Your task to perform on an android device: open chrome privacy settings Image 0: 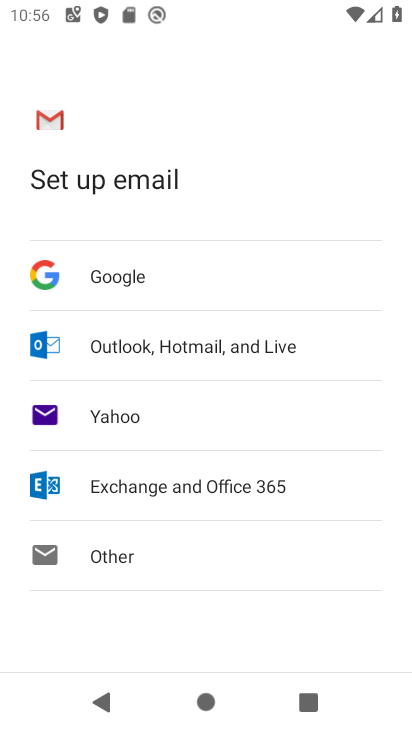
Step 0: press home button
Your task to perform on an android device: open chrome privacy settings Image 1: 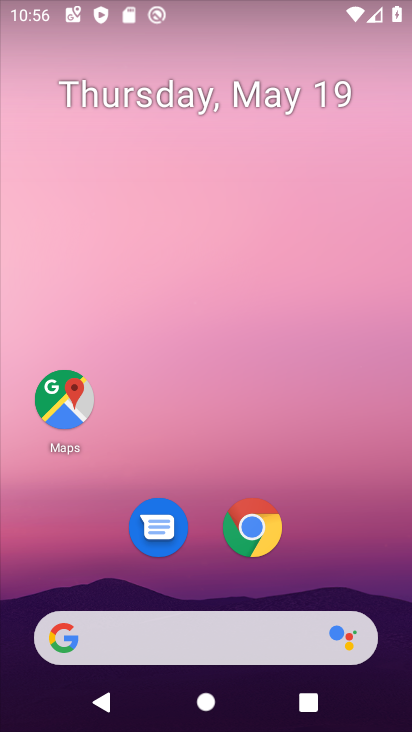
Step 1: click (254, 536)
Your task to perform on an android device: open chrome privacy settings Image 2: 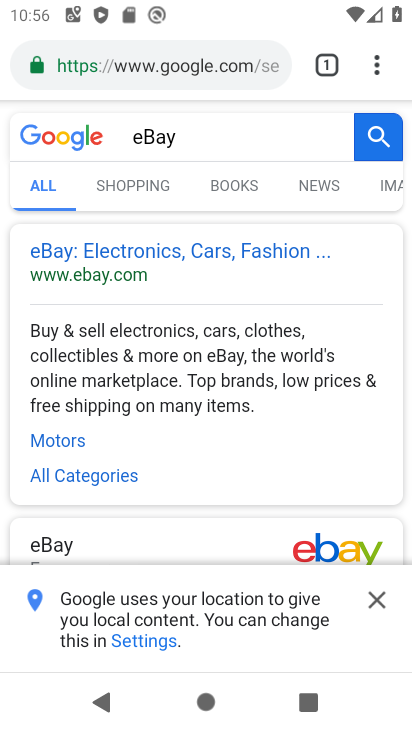
Step 2: click (381, 66)
Your task to perform on an android device: open chrome privacy settings Image 3: 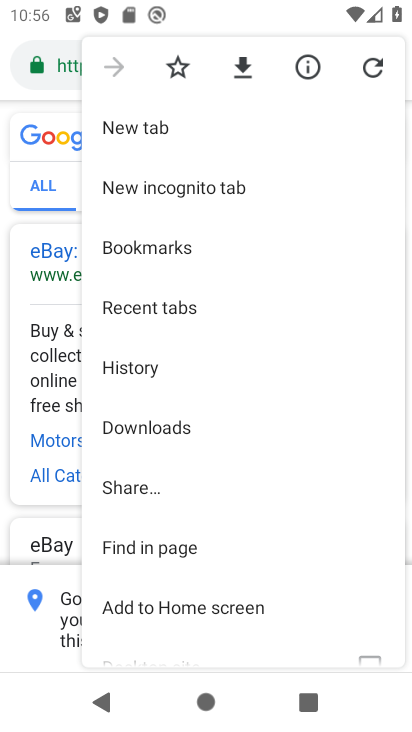
Step 3: drag from (202, 552) to (263, 257)
Your task to perform on an android device: open chrome privacy settings Image 4: 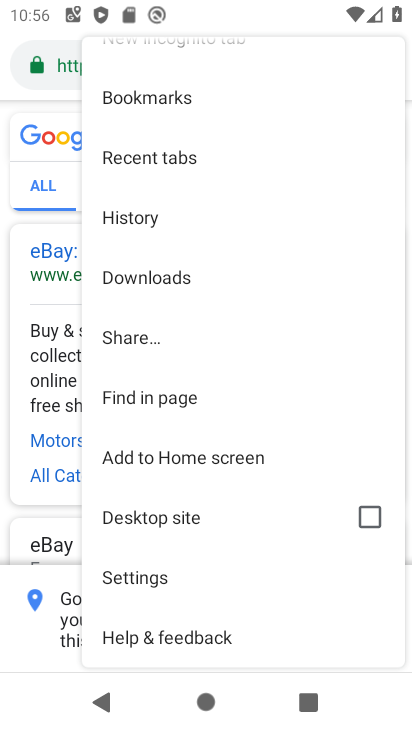
Step 4: click (159, 581)
Your task to perform on an android device: open chrome privacy settings Image 5: 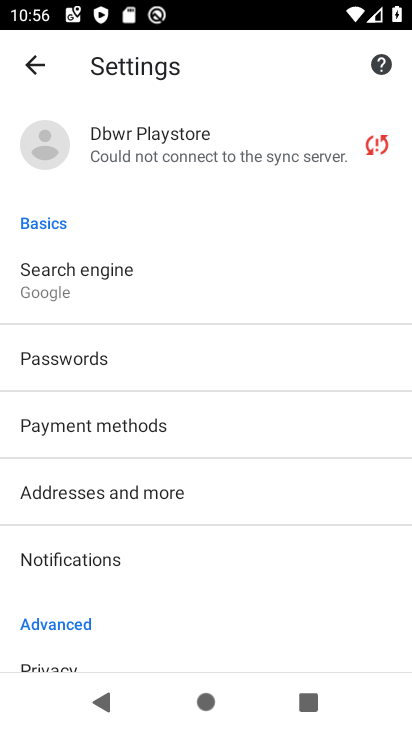
Step 5: drag from (133, 609) to (136, 461)
Your task to perform on an android device: open chrome privacy settings Image 6: 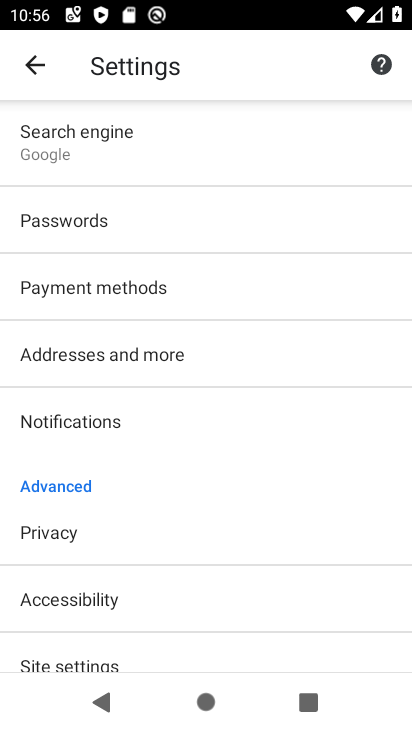
Step 6: click (41, 535)
Your task to perform on an android device: open chrome privacy settings Image 7: 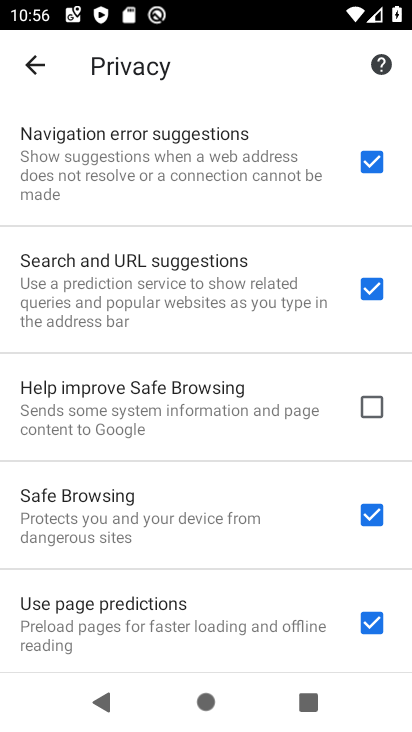
Step 7: task complete